Your task to perform on an android device: turn on bluetooth scan Image 0: 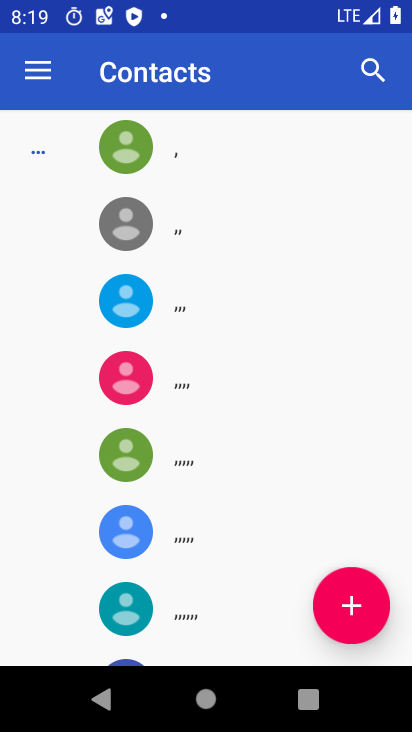
Step 0: press home button
Your task to perform on an android device: turn on bluetooth scan Image 1: 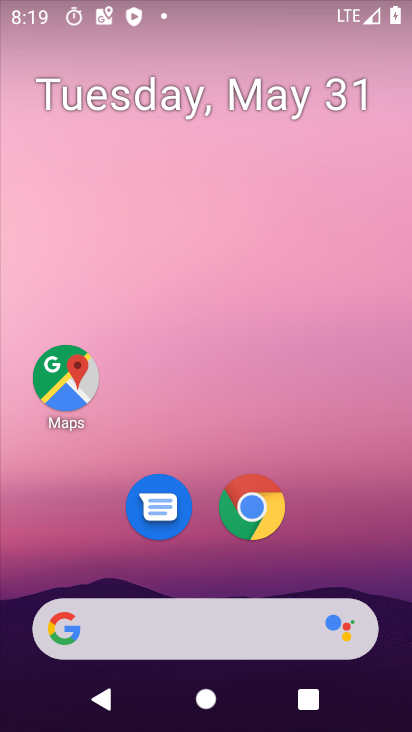
Step 1: drag from (8, 429) to (199, 199)
Your task to perform on an android device: turn on bluetooth scan Image 2: 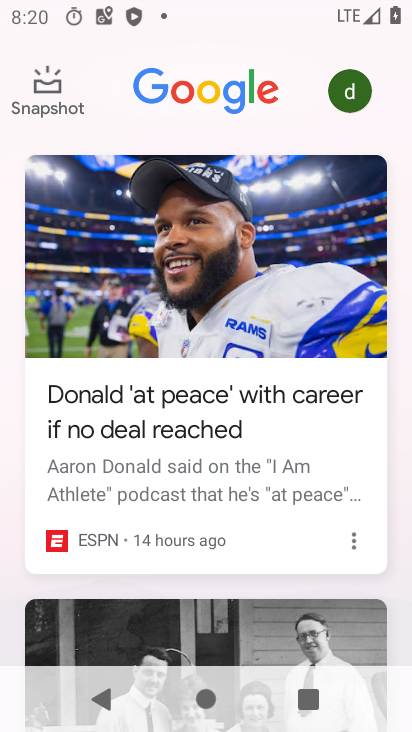
Step 2: press home button
Your task to perform on an android device: turn on bluetooth scan Image 3: 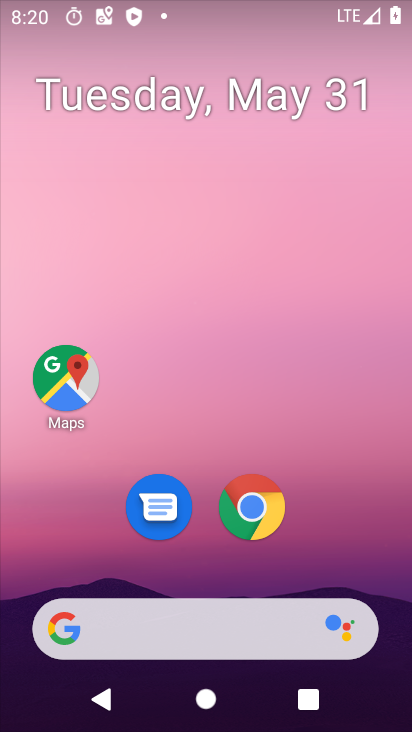
Step 3: drag from (18, 562) to (259, 178)
Your task to perform on an android device: turn on bluetooth scan Image 4: 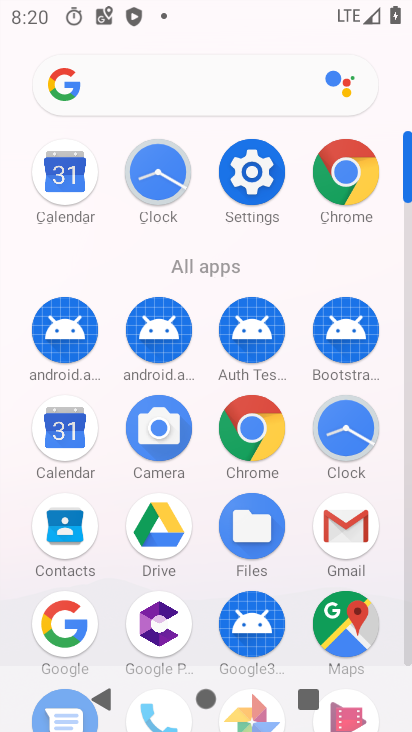
Step 4: click (251, 163)
Your task to perform on an android device: turn on bluetooth scan Image 5: 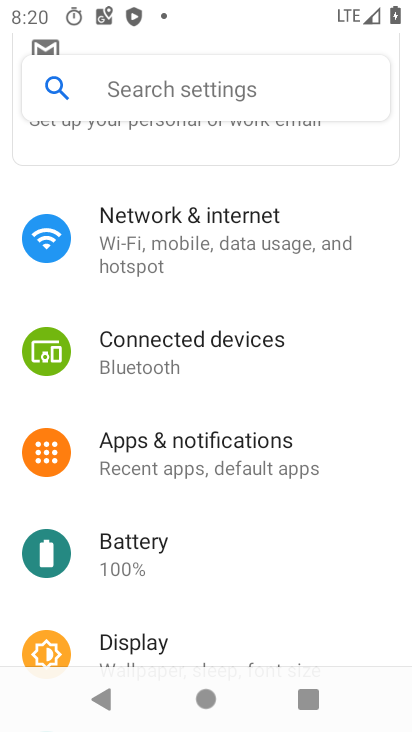
Step 5: drag from (161, 380) to (204, 275)
Your task to perform on an android device: turn on bluetooth scan Image 6: 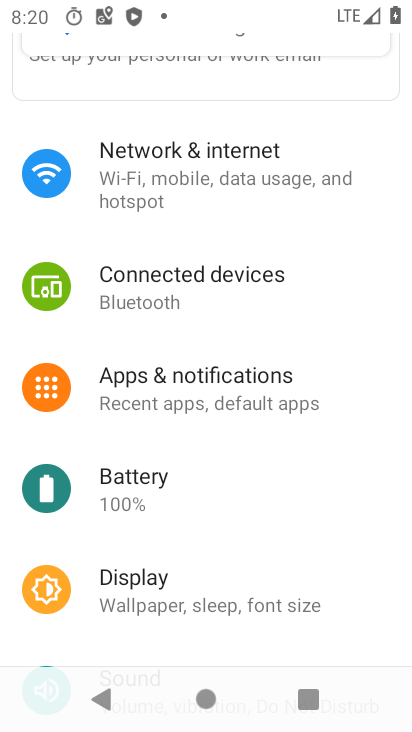
Step 6: drag from (31, 598) to (307, 171)
Your task to perform on an android device: turn on bluetooth scan Image 7: 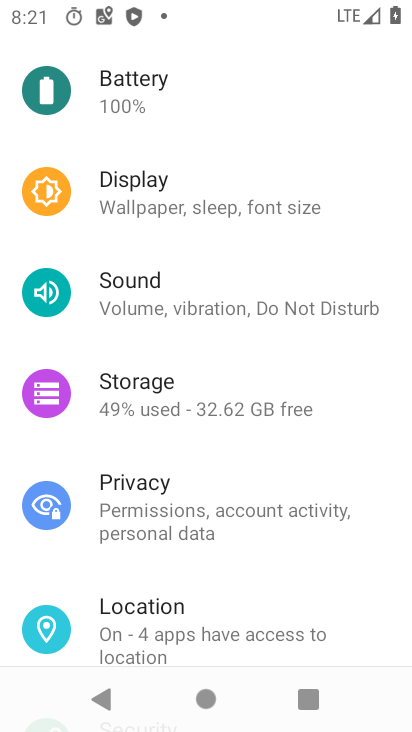
Step 7: click (135, 652)
Your task to perform on an android device: turn on bluetooth scan Image 8: 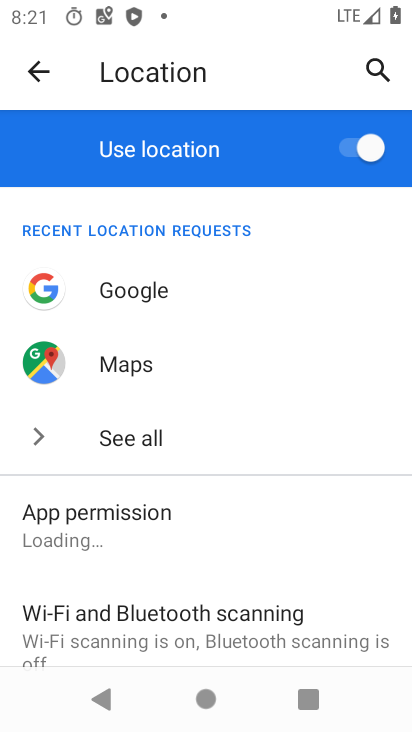
Step 8: click (85, 628)
Your task to perform on an android device: turn on bluetooth scan Image 9: 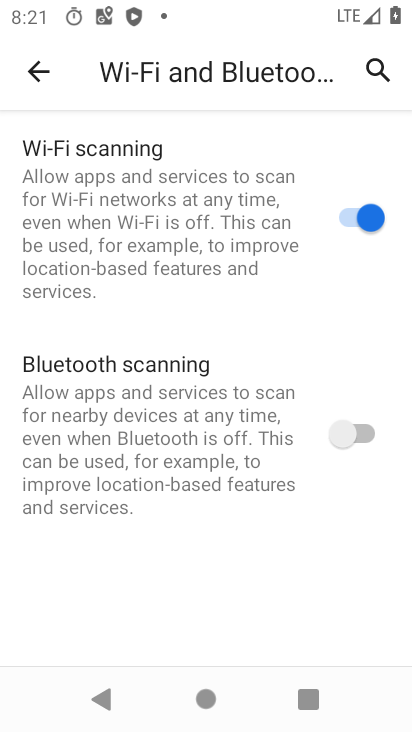
Step 9: click (339, 432)
Your task to perform on an android device: turn on bluetooth scan Image 10: 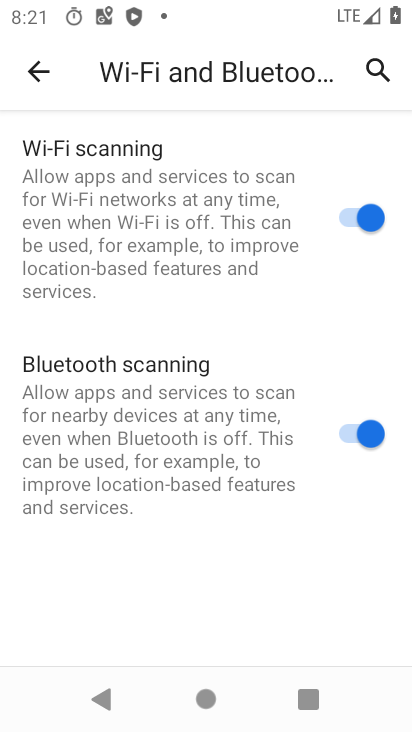
Step 10: task complete